Your task to perform on an android device: What's the weather going to be this weekend? Image 0: 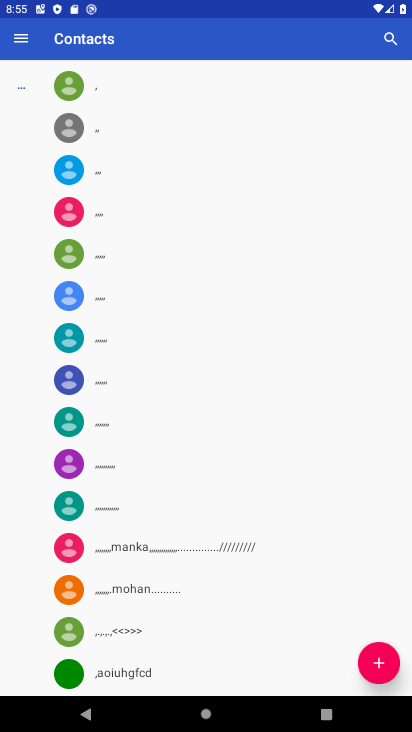
Step 0: press home button
Your task to perform on an android device: What's the weather going to be this weekend? Image 1: 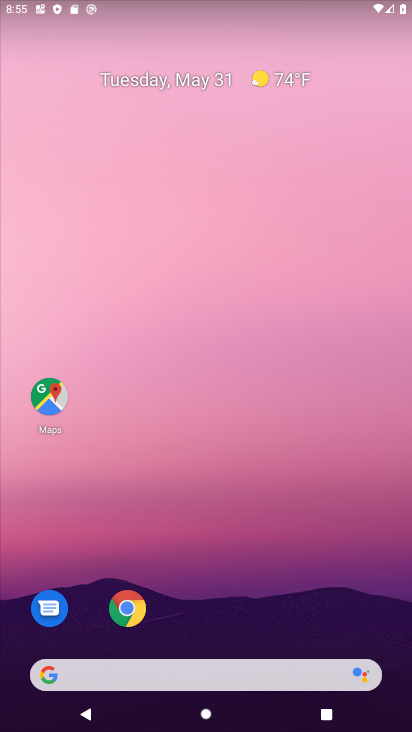
Step 1: click (225, 670)
Your task to perform on an android device: What's the weather going to be this weekend? Image 2: 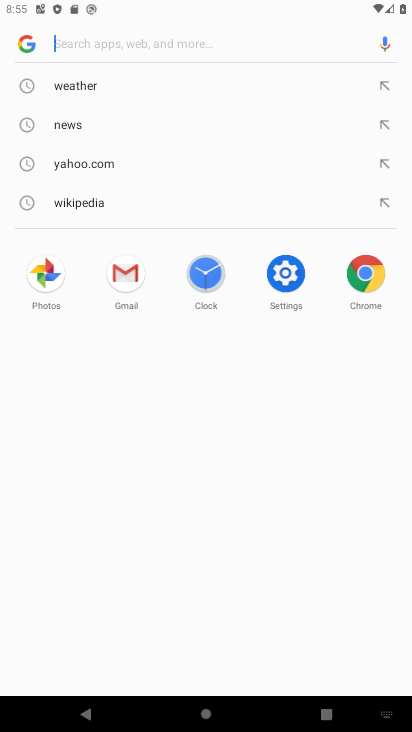
Step 2: click (81, 89)
Your task to perform on an android device: What's the weather going to be this weekend? Image 3: 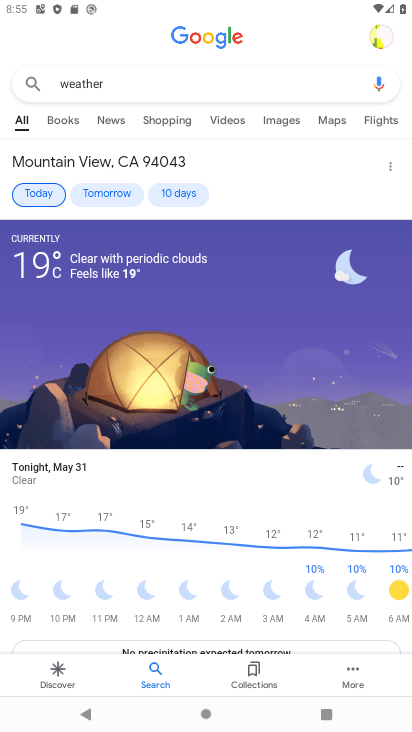
Step 3: click (119, 205)
Your task to perform on an android device: What's the weather going to be this weekend? Image 4: 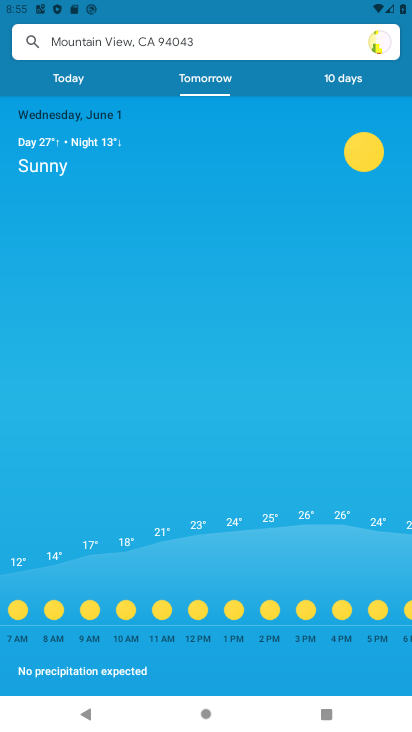
Step 4: click (346, 90)
Your task to perform on an android device: What's the weather going to be this weekend? Image 5: 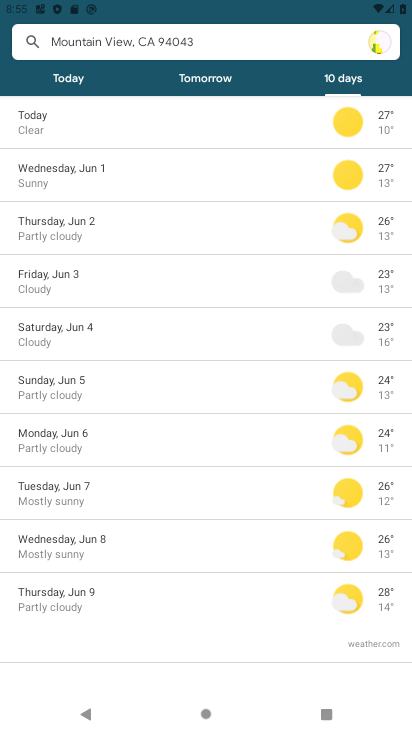
Step 5: task complete